Your task to perform on an android device: Search for pizza restaurants on Maps Image 0: 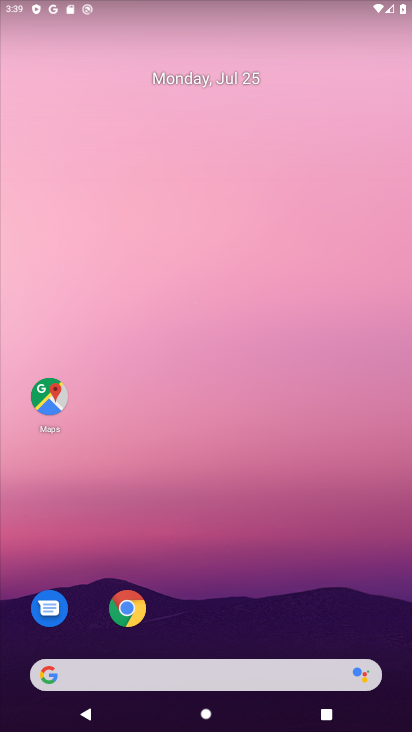
Step 0: press home button
Your task to perform on an android device: Search for pizza restaurants on Maps Image 1: 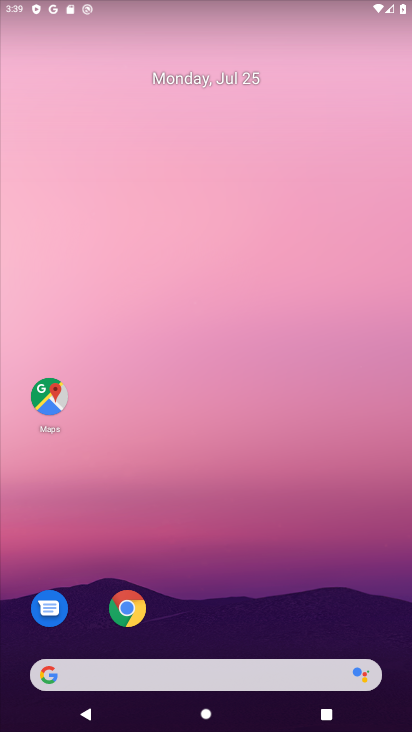
Step 1: click (46, 398)
Your task to perform on an android device: Search for pizza restaurants on Maps Image 2: 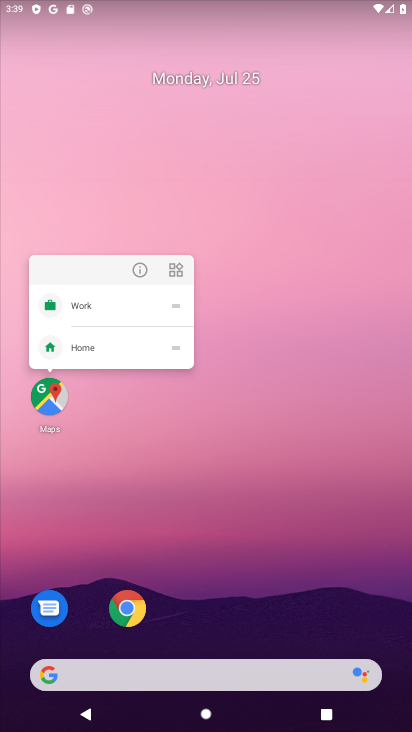
Step 2: click (48, 390)
Your task to perform on an android device: Search for pizza restaurants on Maps Image 3: 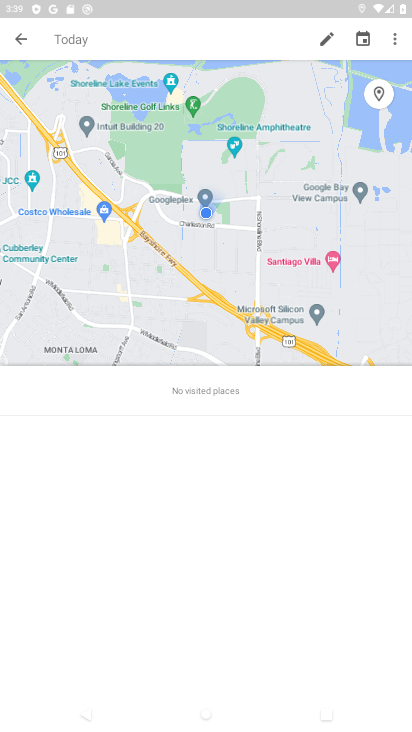
Step 3: click (17, 43)
Your task to perform on an android device: Search for pizza restaurants on Maps Image 4: 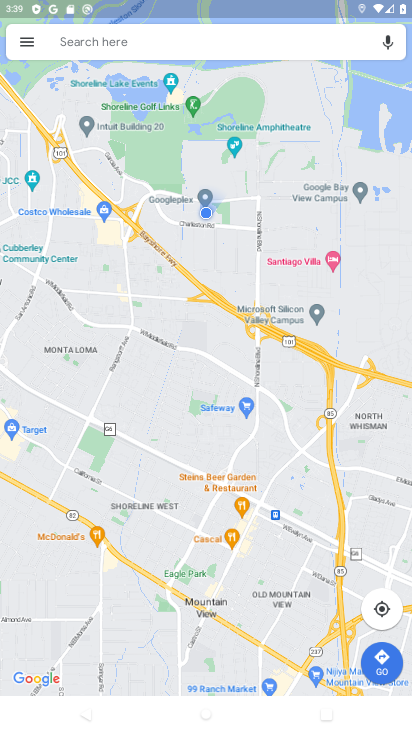
Step 4: click (111, 33)
Your task to perform on an android device: Search for pizza restaurants on Maps Image 5: 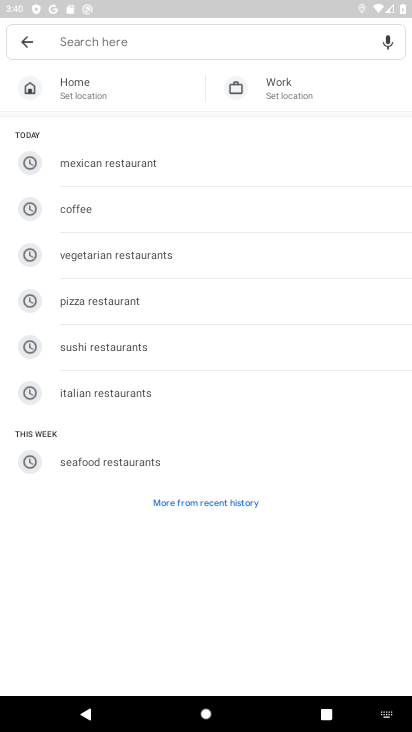
Step 5: click (92, 306)
Your task to perform on an android device: Search for pizza restaurants on Maps Image 6: 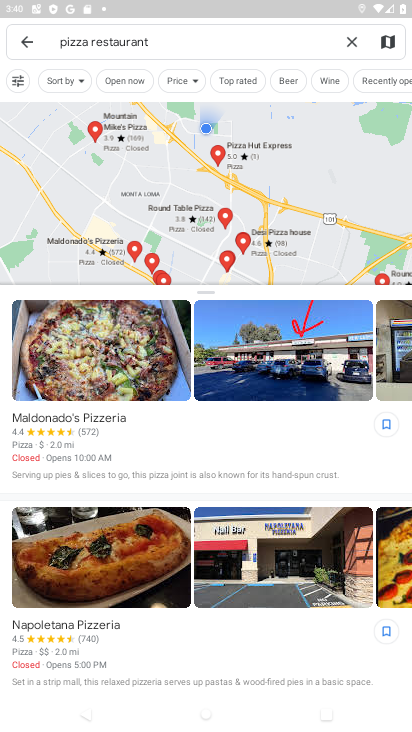
Step 6: task complete